Your task to perform on an android device: change text size in settings app Image 0: 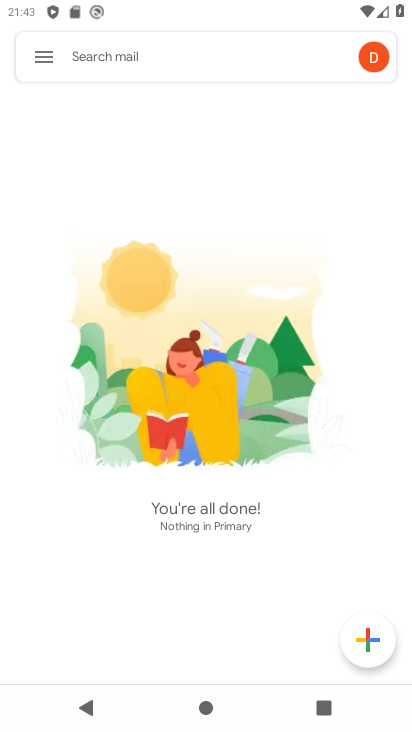
Step 0: press home button
Your task to perform on an android device: change text size in settings app Image 1: 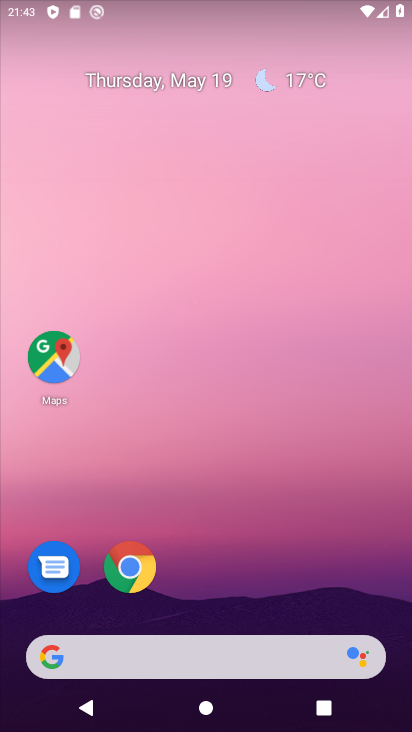
Step 1: drag from (303, 512) to (260, 25)
Your task to perform on an android device: change text size in settings app Image 2: 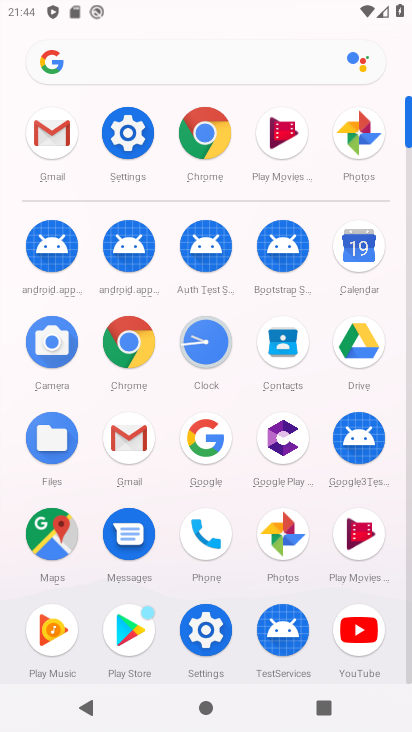
Step 2: click (192, 639)
Your task to perform on an android device: change text size in settings app Image 3: 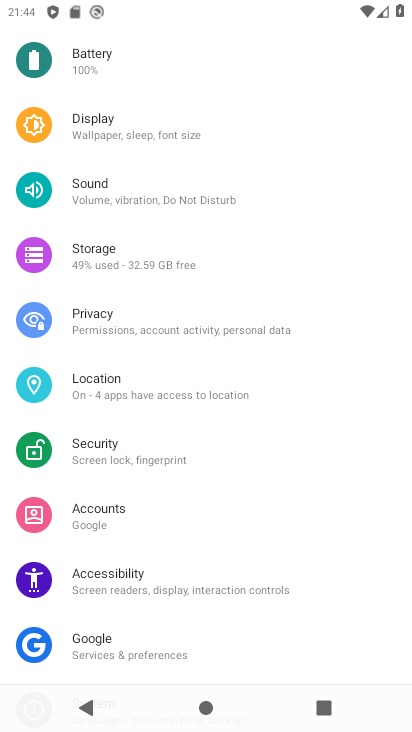
Step 3: click (118, 134)
Your task to perform on an android device: change text size in settings app Image 4: 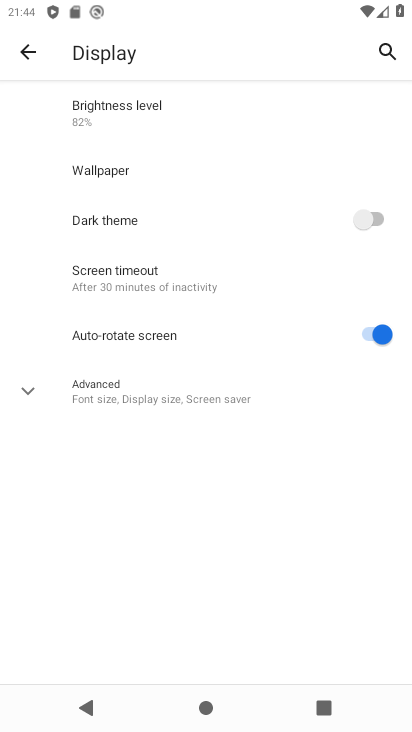
Step 4: click (134, 407)
Your task to perform on an android device: change text size in settings app Image 5: 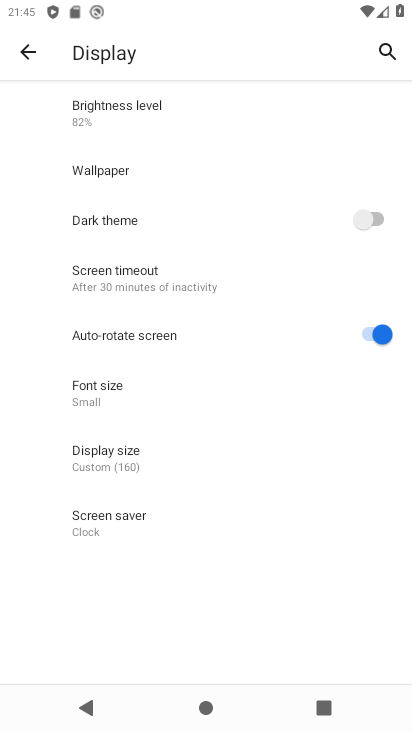
Step 5: click (136, 390)
Your task to perform on an android device: change text size in settings app Image 6: 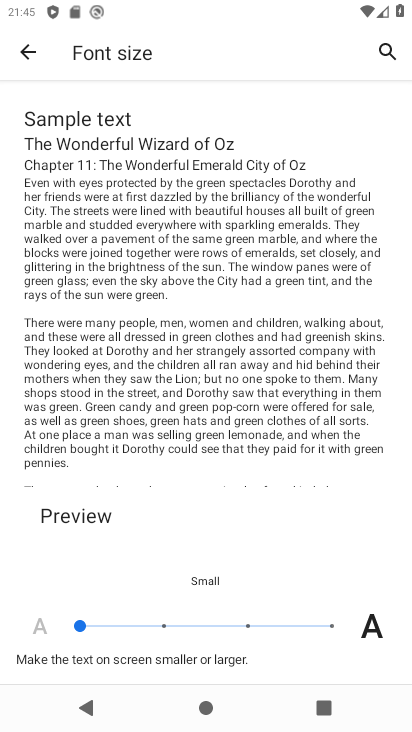
Step 6: click (166, 622)
Your task to perform on an android device: change text size in settings app Image 7: 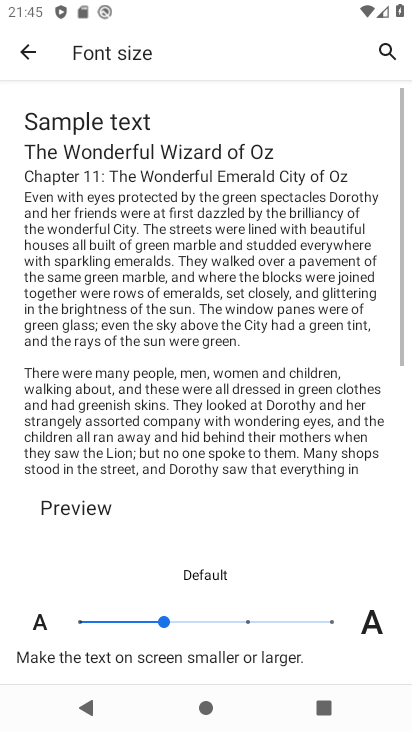
Step 7: task complete